Your task to perform on an android device: change the clock display to show seconds Image 0: 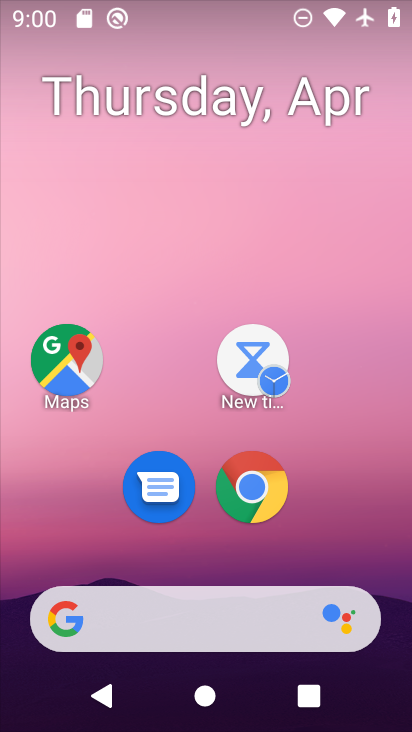
Step 0: drag from (323, 547) to (323, 219)
Your task to perform on an android device: change the clock display to show seconds Image 1: 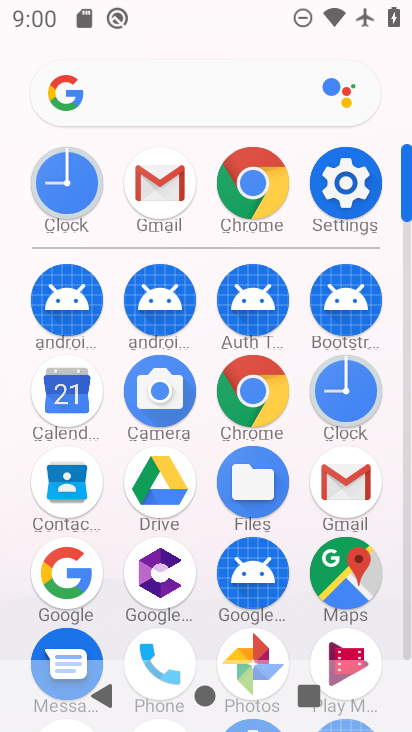
Step 1: click (351, 373)
Your task to perform on an android device: change the clock display to show seconds Image 2: 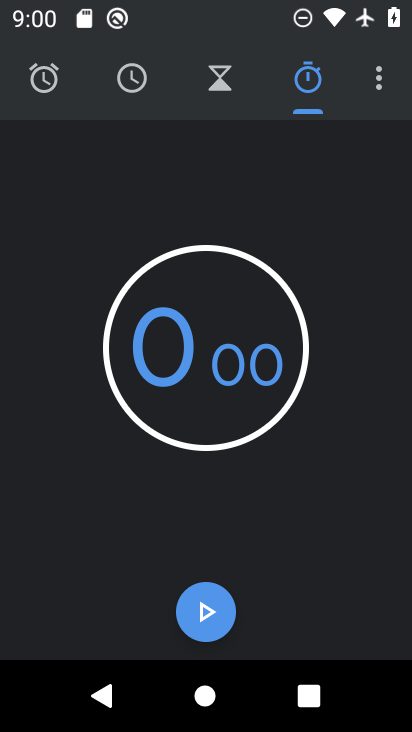
Step 2: click (383, 81)
Your task to perform on an android device: change the clock display to show seconds Image 3: 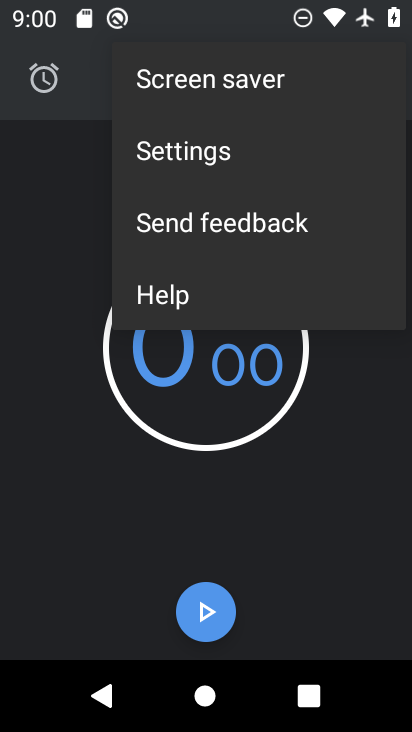
Step 3: click (223, 154)
Your task to perform on an android device: change the clock display to show seconds Image 4: 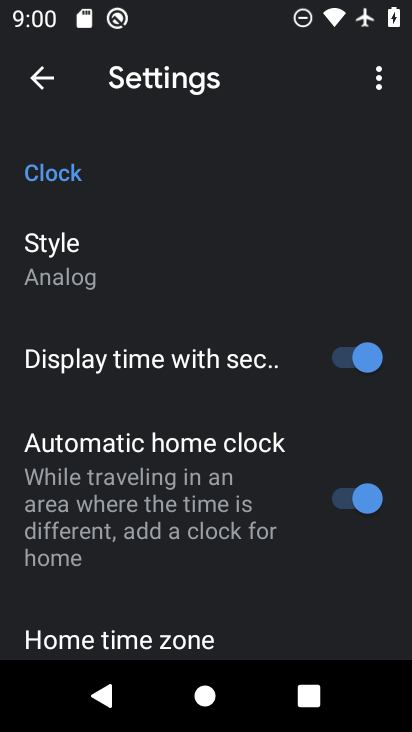
Step 4: click (353, 352)
Your task to perform on an android device: change the clock display to show seconds Image 5: 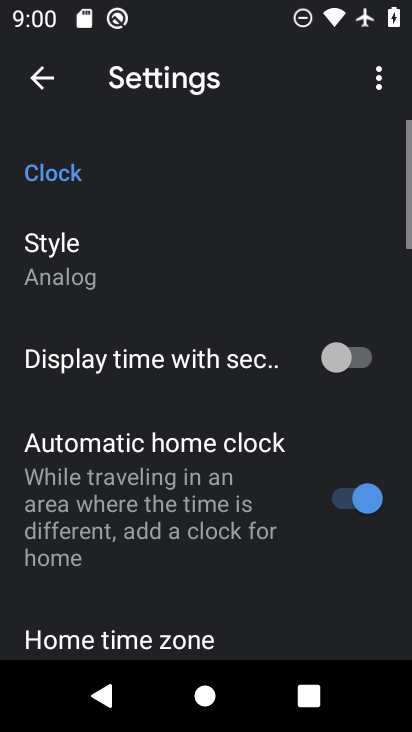
Step 5: task complete